Your task to perform on an android device: Open Google Chrome Image 0: 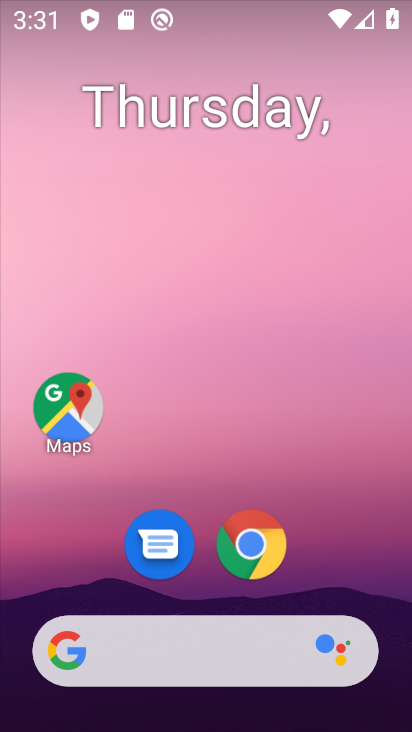
Step 0: click (251, 556)
Your task to perform on an android device: Open Google Chrome Image 1: 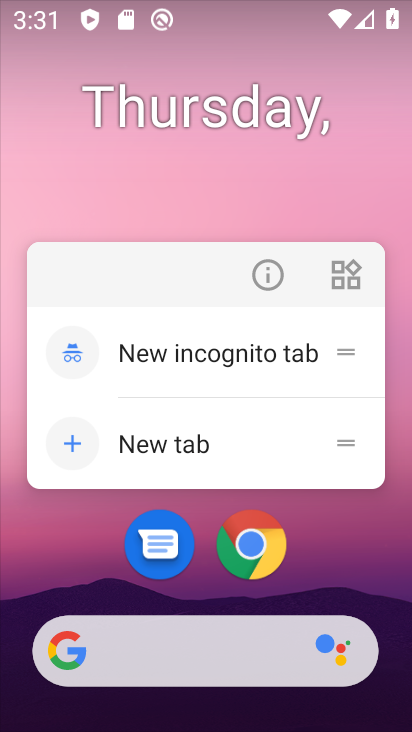
Step 1: click (259, 541)
Your task to perform on an android device: Open Google Chrome Image 2: 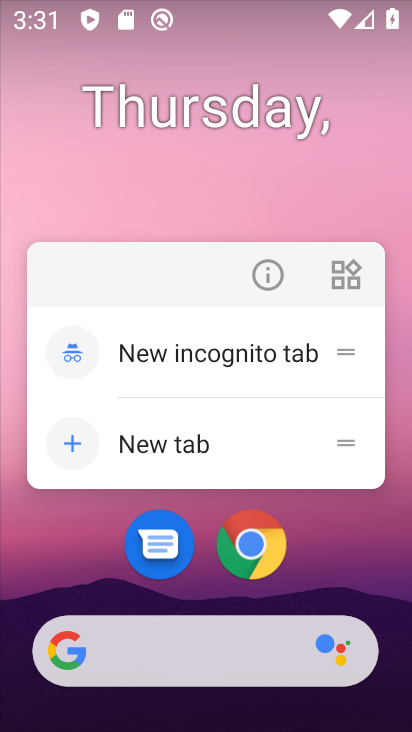
Step 2: click (252, 553)
Your task to perform on an android device: Open Google Chrome Image 3: 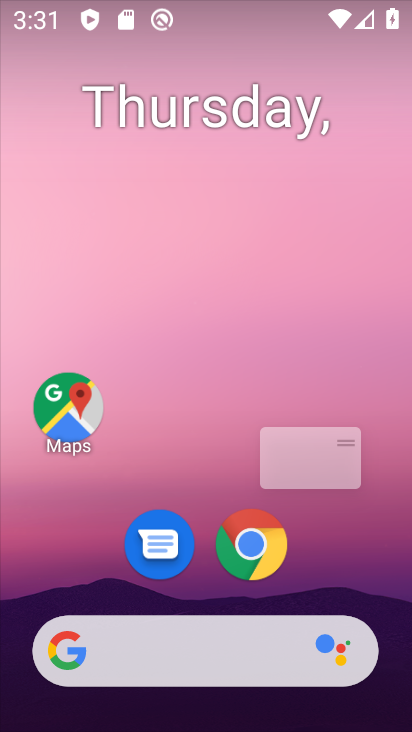
Step 3: click (252, 553)
Your task to perform on an android device: Open Google Chrome Image 4: 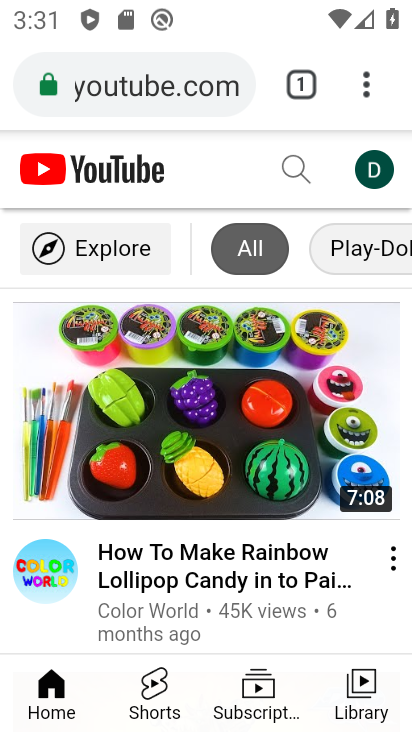
Step 4: task complete